Your task to perform on an android device: Search for pizza restaurants on Maps Image 0: 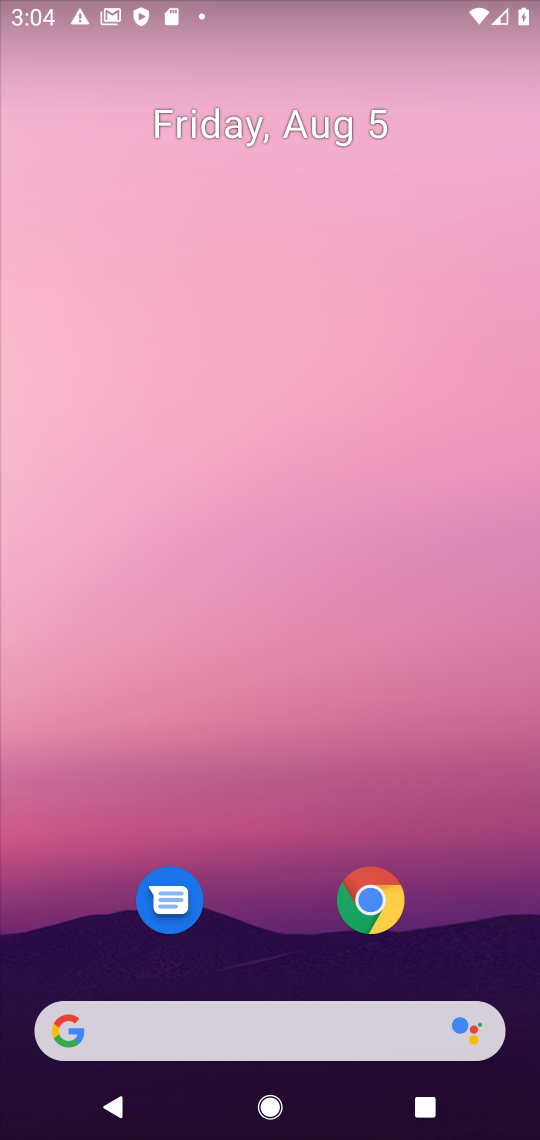
Step 0: drag from (260, 887) to (355, 98)
Your task to perform on an android device: Search for pizza restaurants on Maps Image 1: 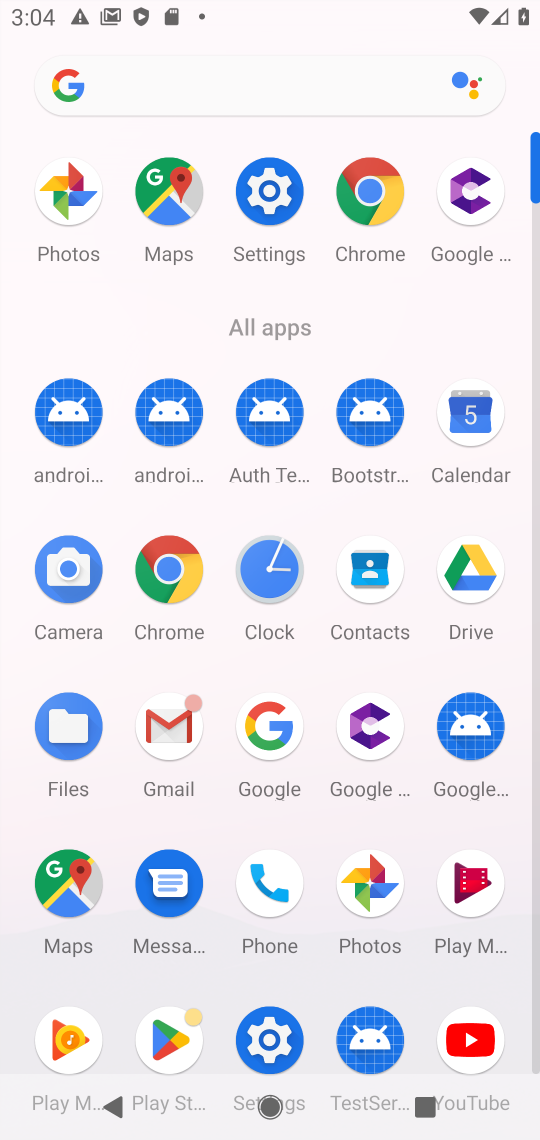
Step 1: click (169, 201)
Your task to perform on an android device: Search for pizza restaurants on Maps Image 2: 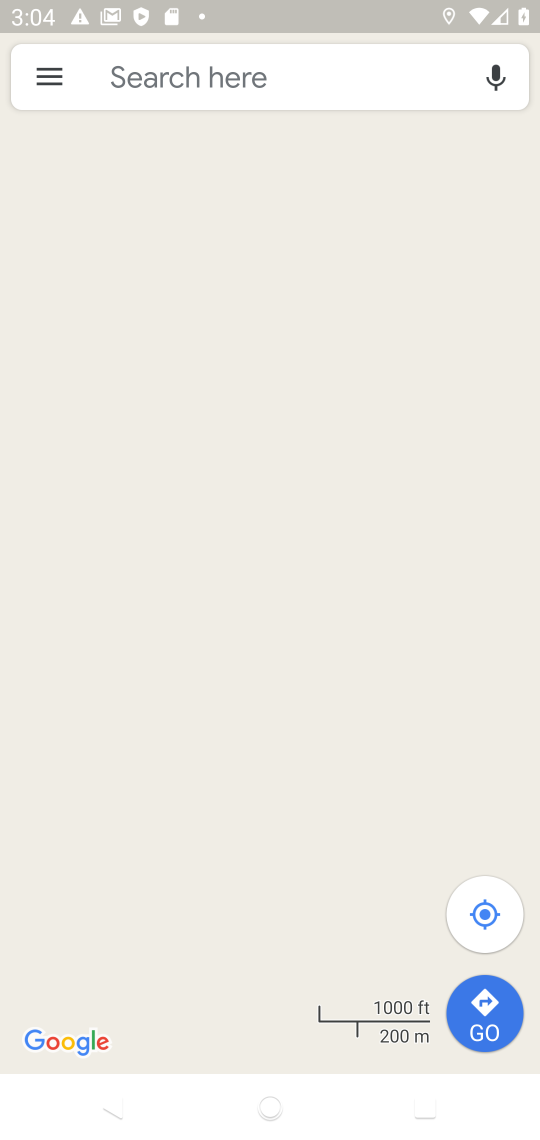
Step 2: click (266, 77)
Your task to perform on an android device: Search for pizza restaurants on Maps Image 3: 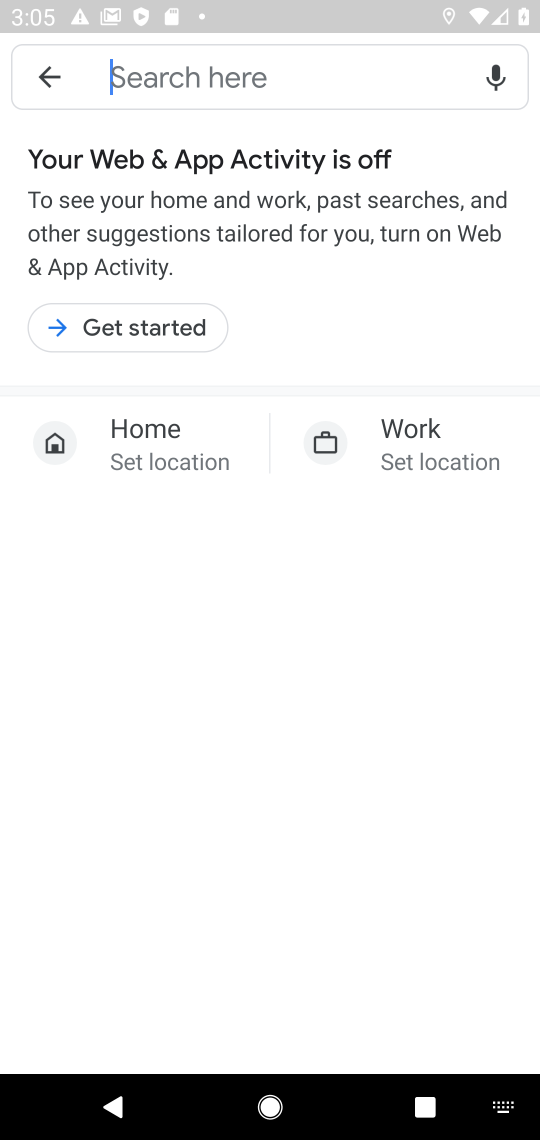
Step 3: type "pizza restaurants"
Your task to perform on an android device: Search for pizza restaurants on Maps Image 4: 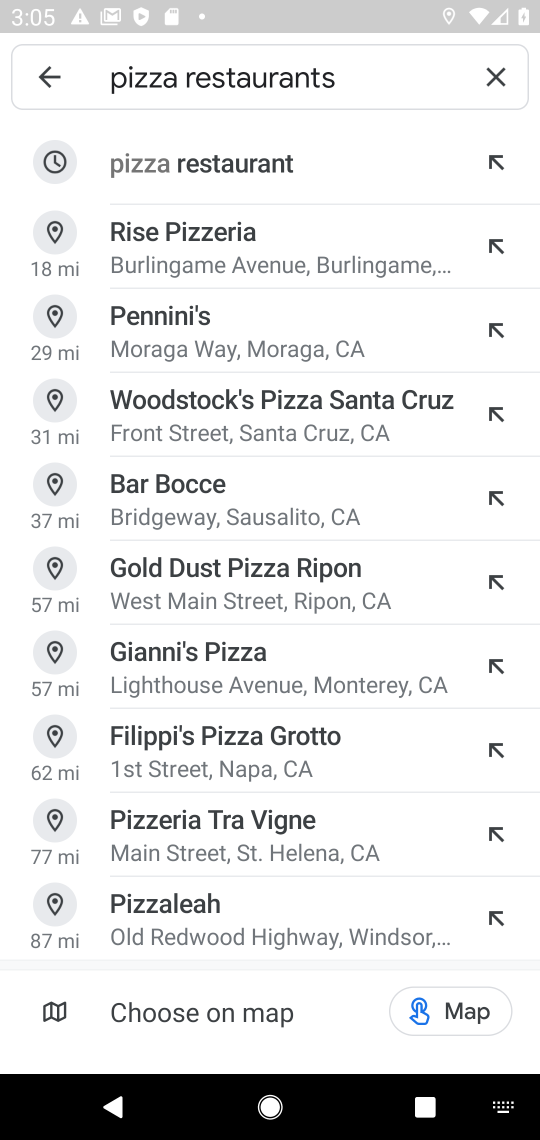
Step 4: click (201, 156)
Your task to perform on an android device: Search for pizza restaurants on Maps Image 5: 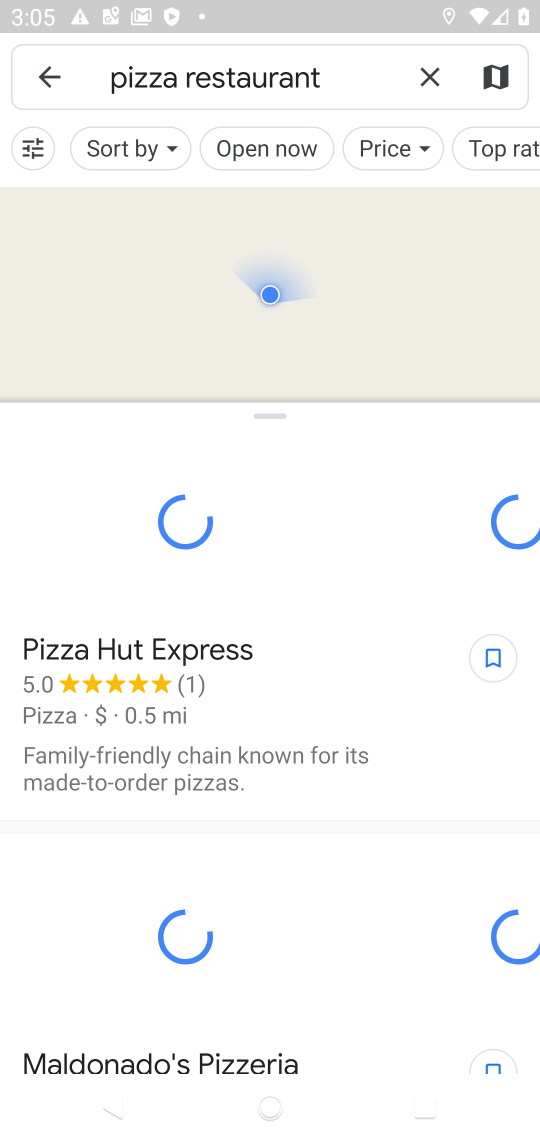
Step 5: task complete